Your task to perform on an android device: change notifications settings Image 0: 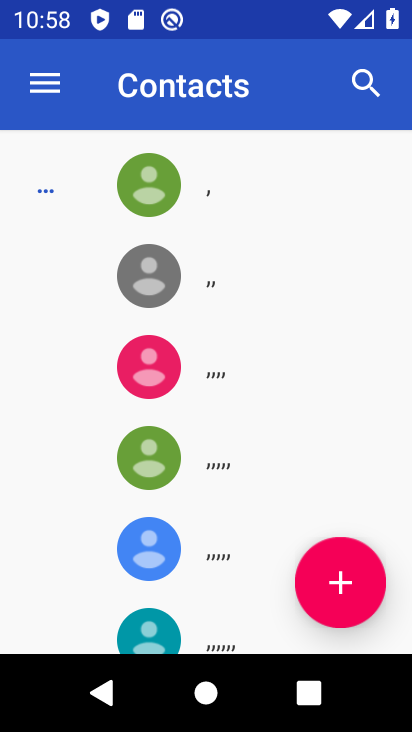
Step 0: press home button
Your task to perform on an android device: change notifications settings Image 1: 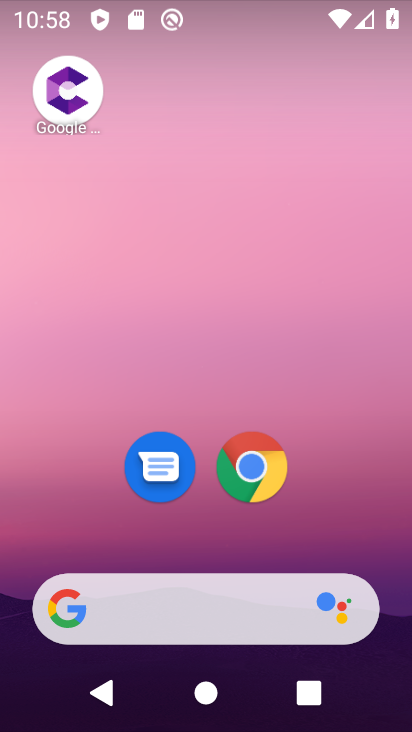
Step 1: drag from (324, 523) to (275, 22)
Your task to perform on an android device: change notifications settings Image 2: 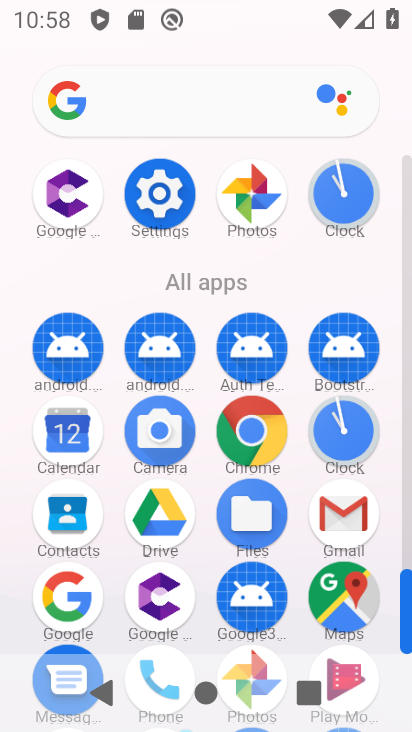
Step 2: click (157, 201)
Your task to perform on an android device: change notifications settings Image 3: 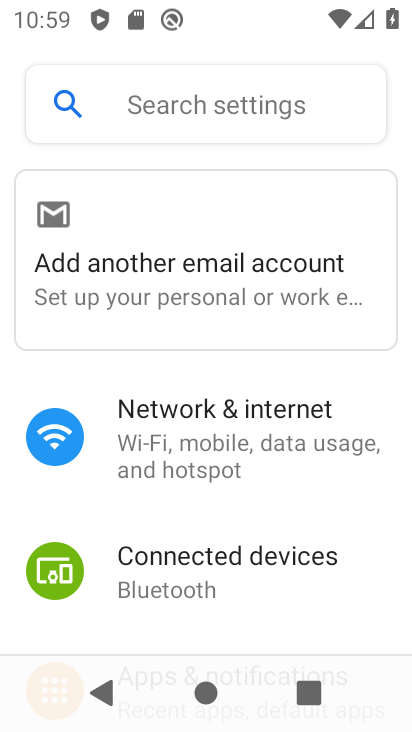
Step 3: drag from (194, 496) to (231, 185)
Your task to perform on an android device: change notifications settings Image 4: 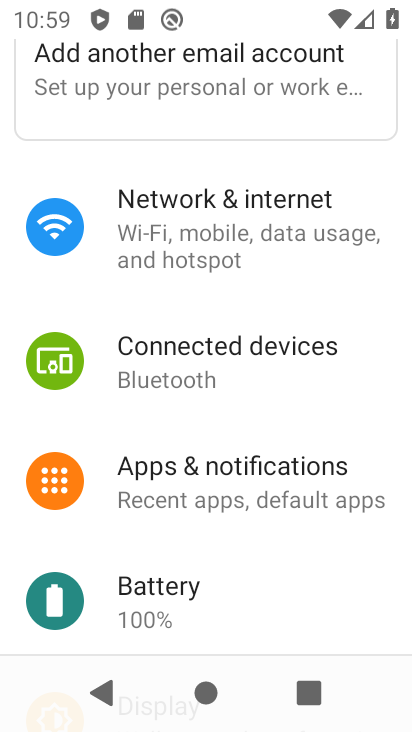
Step 4: click (185, 451)
Your task to perform on an android device: change notifications settings Image 5: 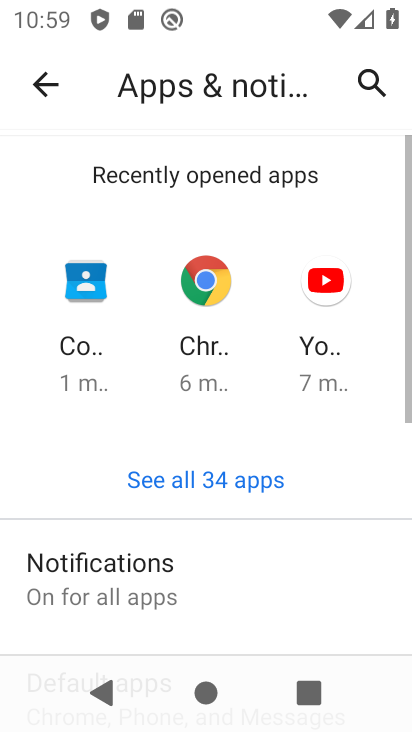
Step 5: click (173, 585)
Your task to perform on an android device: change notifications settings Image 6: 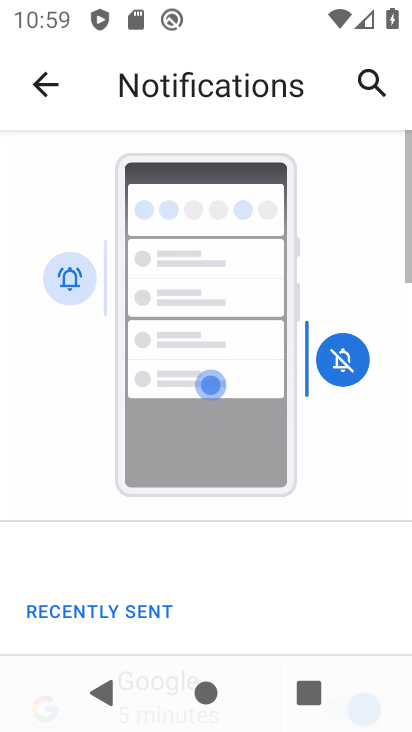
Step 6: drag from (237, 571) to (239, 212)
Your task to perform on an android device: change notifications settings Image 7: 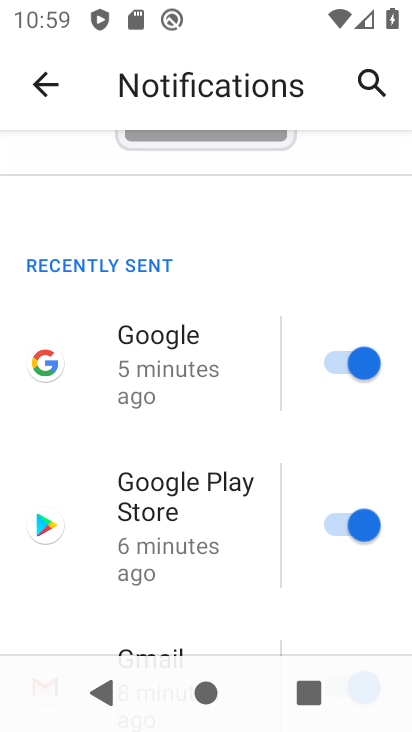
Step 7: click (357, 366)
Your task to perform on an android device: change notifications settings Image 8: 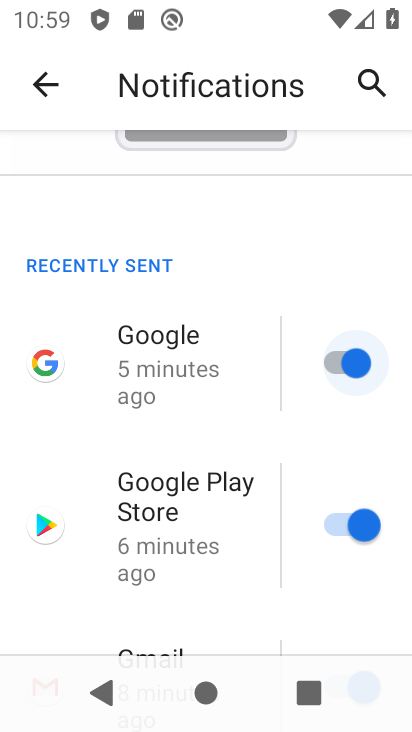
Step 8: click (355, 525)
Your task to perform on an android device: change notifications settings Image 9: 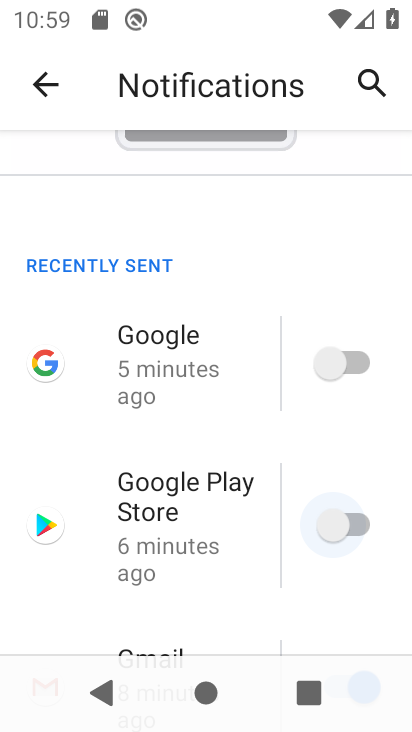
Step 9: drag from (218, 603) to (202, 375)
Your task to perform on an android device: change notifications settings Image 10: 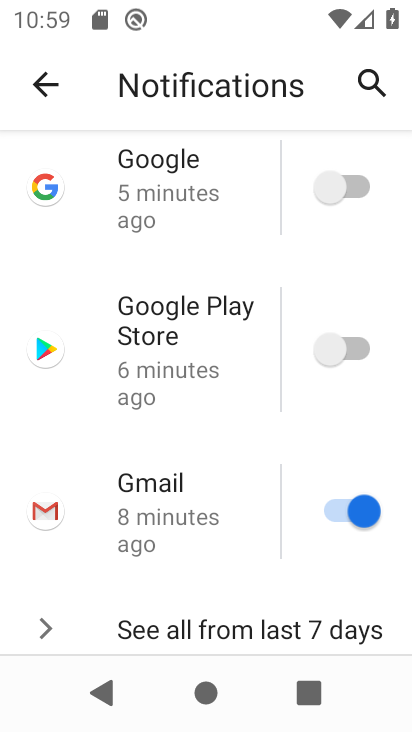
Step 10: click (344, 515)
Your task to perform on an android device: change notifications settings Image 11: 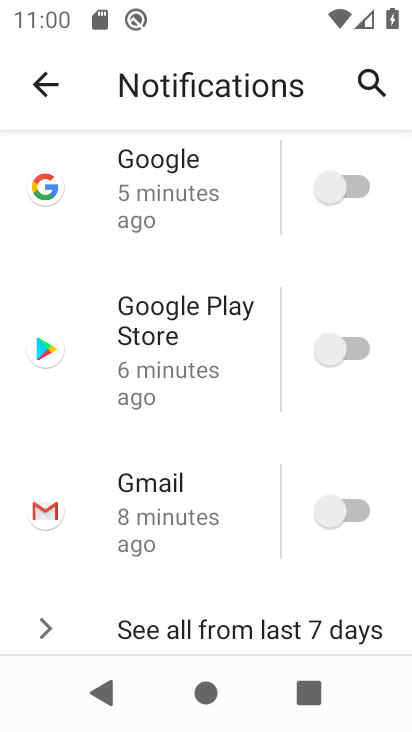
Step 11: task complete